Your task to perform on an android device: Do I have any events tomorrow? Image 0: 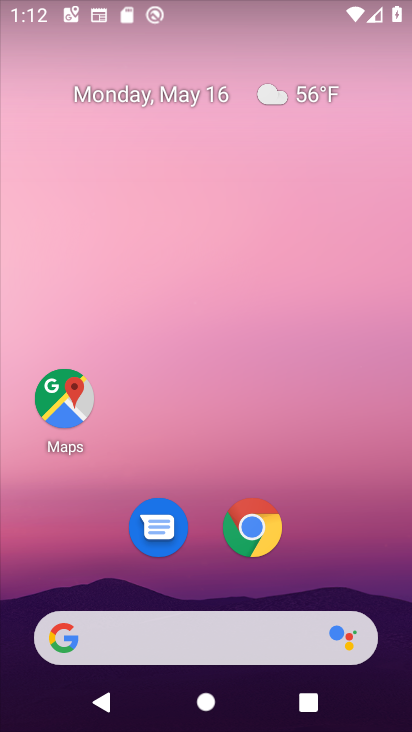
Step 0: drag from (224, 632) to (137, 31)
Your task to perform on an android device: Do I have any events tomorrow? Image 1: 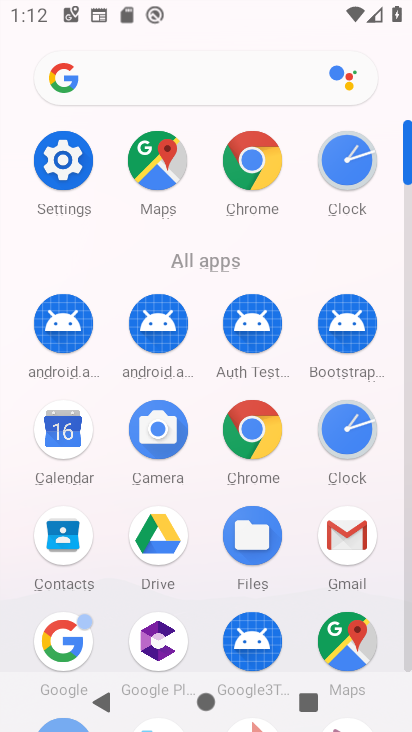
Step 1: click (86, 435)
Your task to perform on an android device: Do I have any events tomorrow? Image 2: 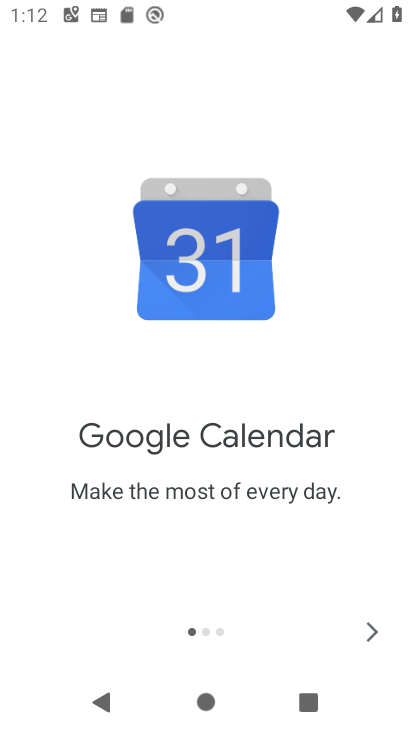
Step 2: click (379, 645)
Your task to perform on an android device: Do I have any events tomorrow? Image 3: 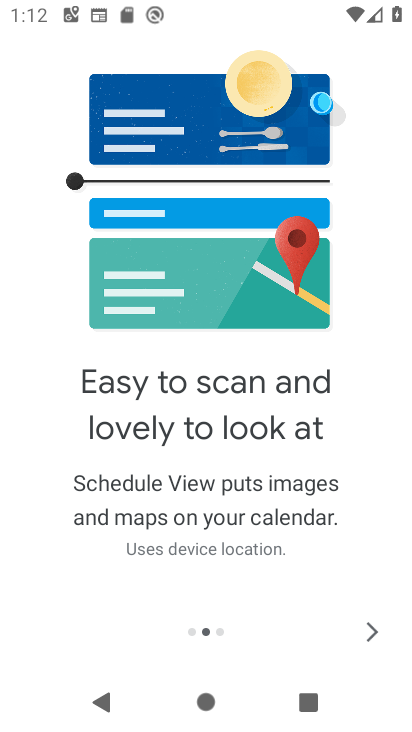
Step 3: click (367, 636)
Your task to perform on an android device: Do I have any events tomorrow? Image 4: 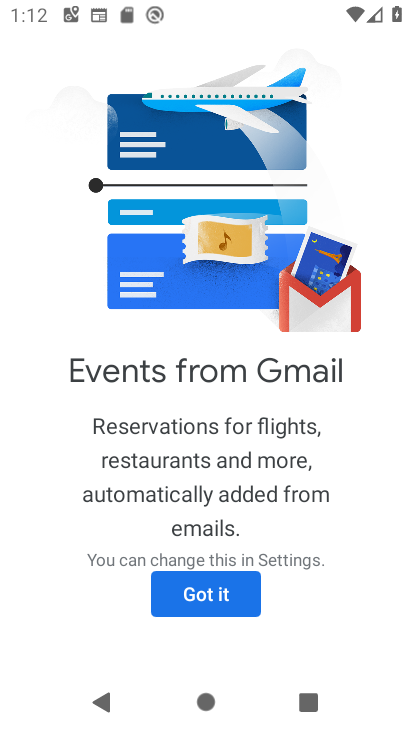
Step 4: click (224, 598)
Your task to perform on an android device: Do I have any events tomorrow? Image 5: 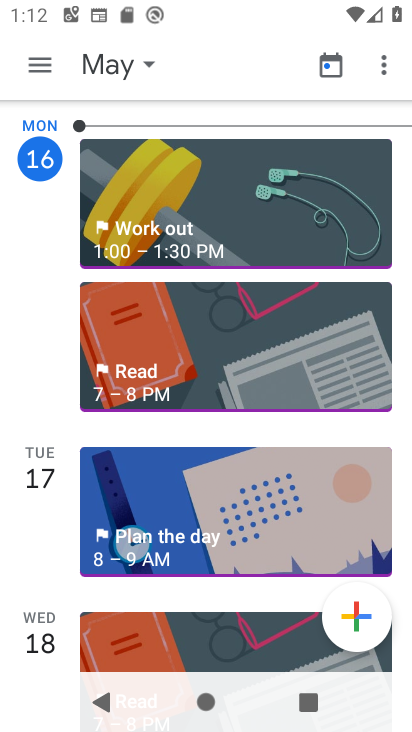
Step 5: task complete